Your task to perform on an android device: open chrome and create a bookmark for the current page Image 0: 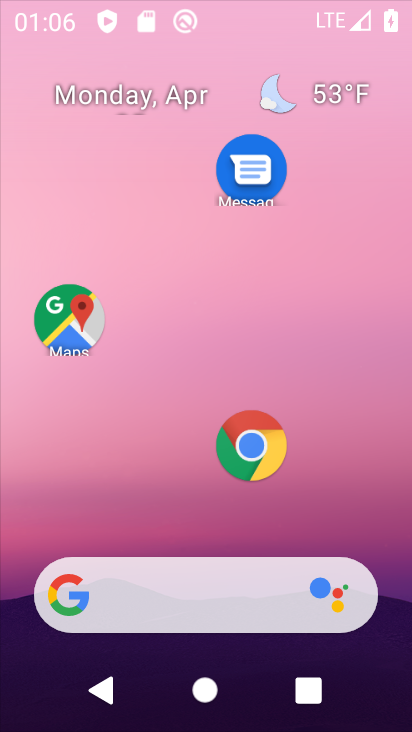
Step 0: click (263, 470)
Your task to perform on an android device: open chrome and create a bookmark for the current page Image 1: 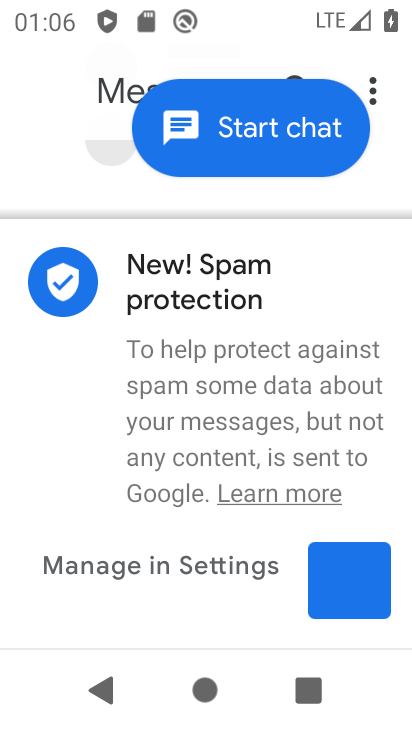
Step 1: press home button
Your task to perform on an android device: open chrome and create a bookmark for the current page Image 2: 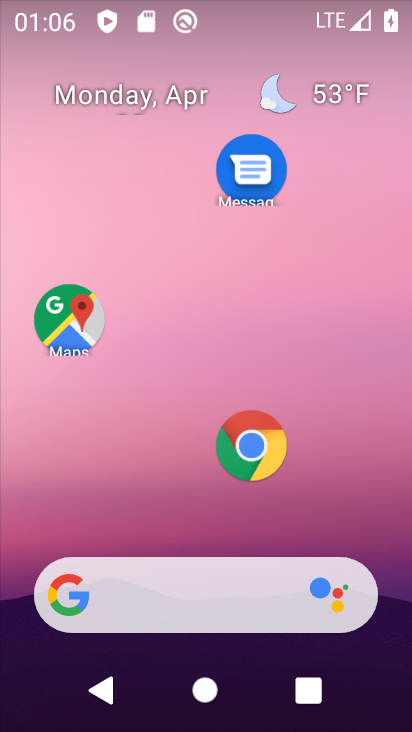
Step 2: click (266, 440)
Your task to perform on an android device: open chrome and create a bookmark for the current page Image 3: 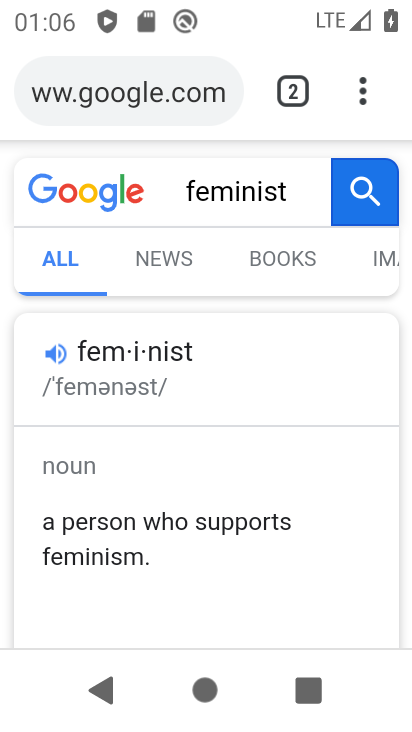
Step 3: click (169, 103)
Your task to perform on an android device: open chrome and create a bookmark for the current page Image 4: 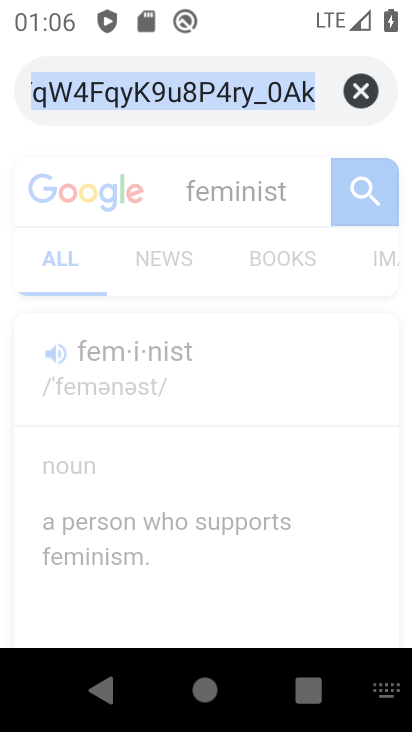
Step 4: type "terrestial"
Your task to perform on an android device: open chrome and create a bookmark for the current page Image 5: 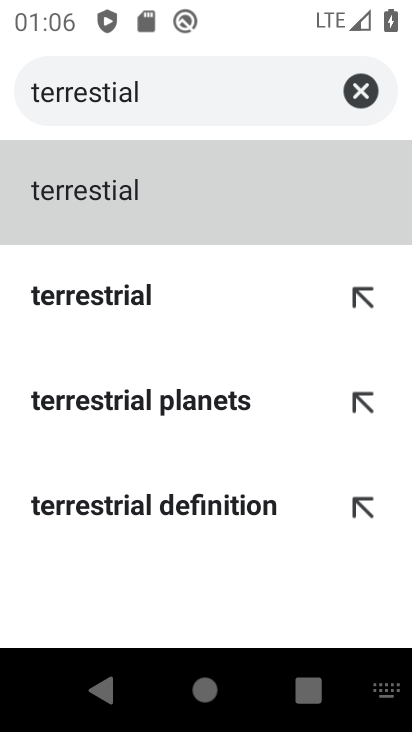
Step 5: click (148, 402)
Your task to perform on an android device: open chrome and create a bookmark for the current page Image 6: 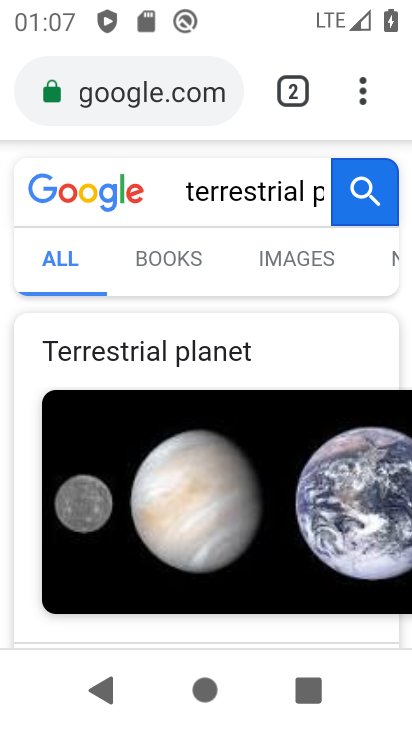
Step 6: click (363, 98)
Your task to perform on an android device: open chrome and create a bookmark for the current page Image 7: 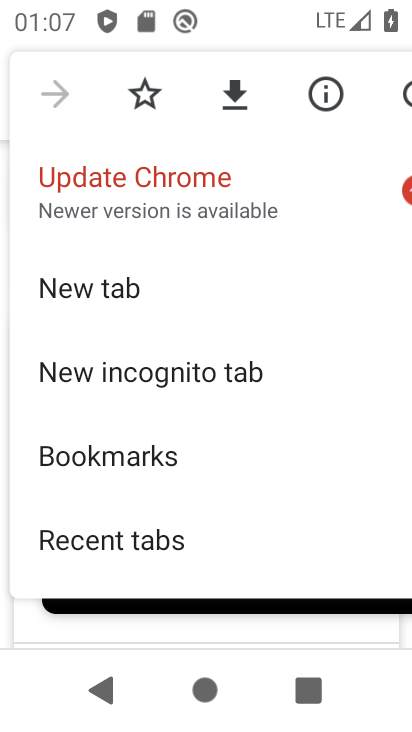
Step 7: click (141, 101)
Your task to perform on an android device: open chrome and create a bookmark for the current page Image 8: 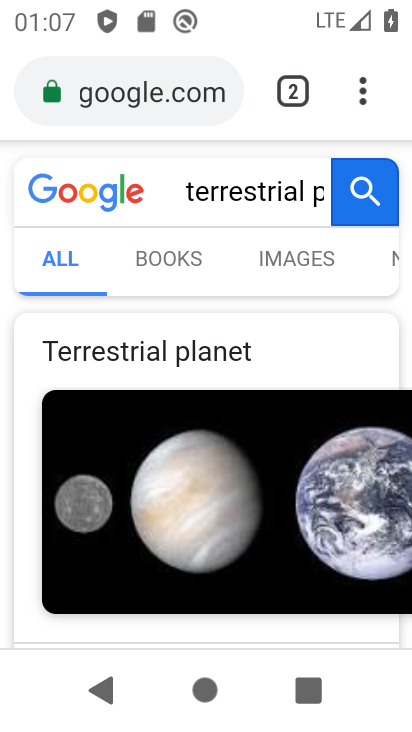
Step 8: task complete